Your task to perform on an android device: Open location settings Image 0: 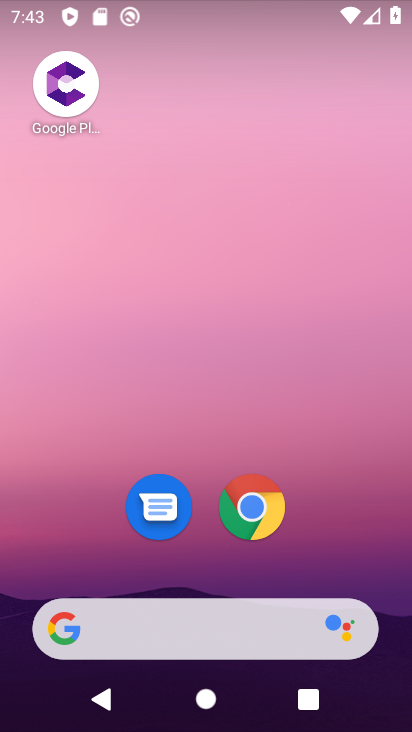
Step 0: drag from (336, 524) to (366, 143)
Your task to perform on an android device: Open location settings Image 1: 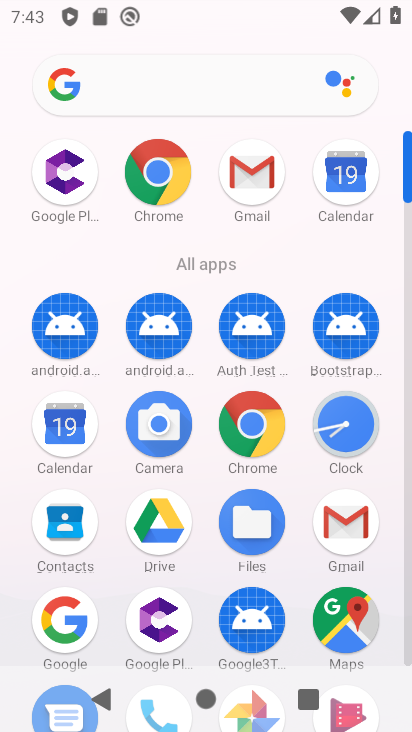
Step 1: drag from (113, 619) to (114, 139)
Your task to perform on an android device: Open location settings Image 2: 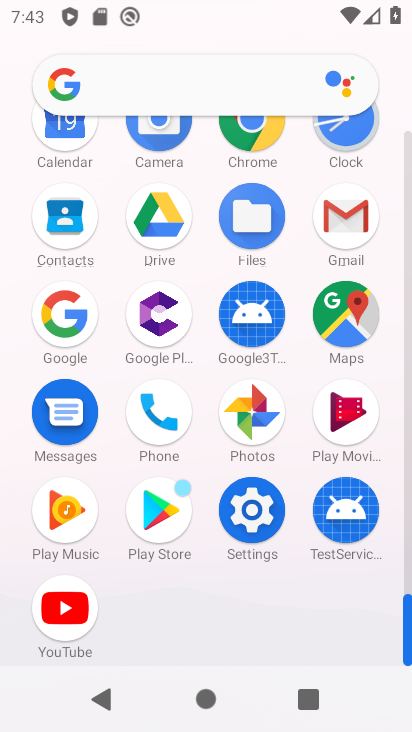
Step 2: click (265, 510)
Your task to perform on an android device: Open location settings Image 3: 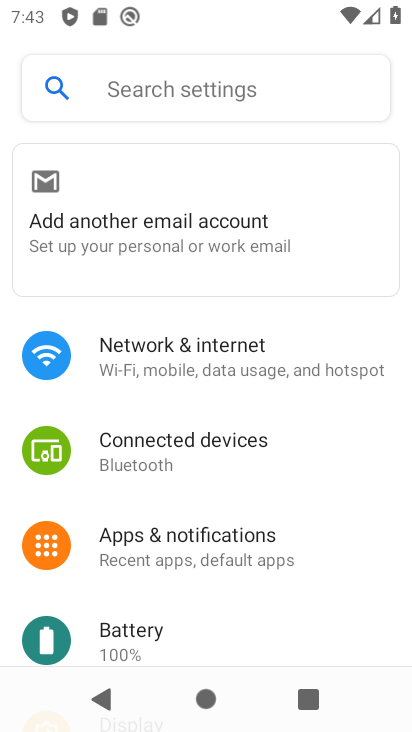
Step 3: drag from (300, 572) to (292, 157)
Your task to perform on an android device: Open location settings Image 4: 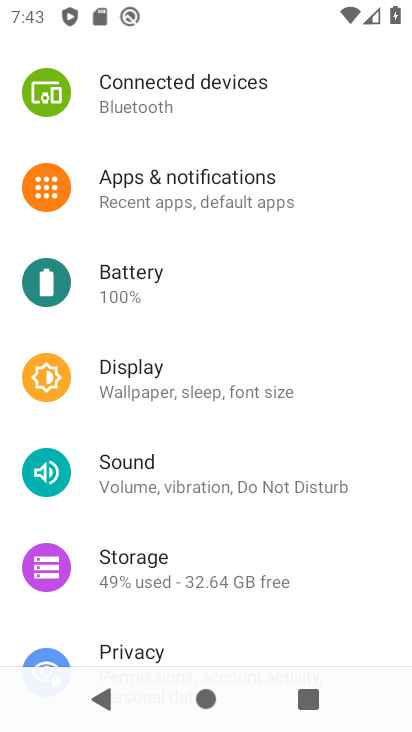
Step 4: drag from (202, 540) to (221, 203)
Your task to perform on an android device: Open location settings Image 5: 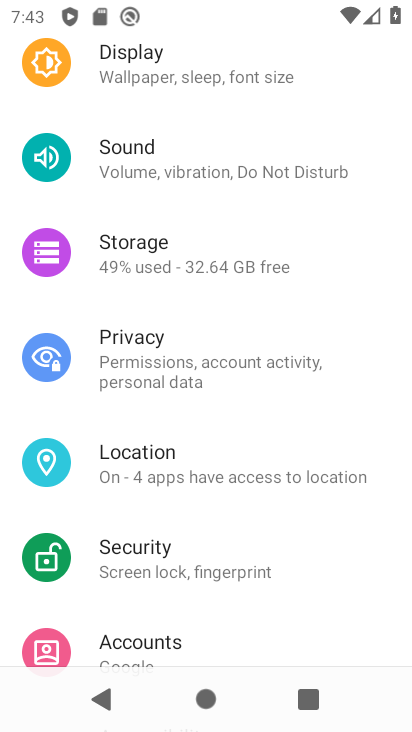
Step 5: click (163, 468)
Your task to perform on an android device: Open location settings Image 6: 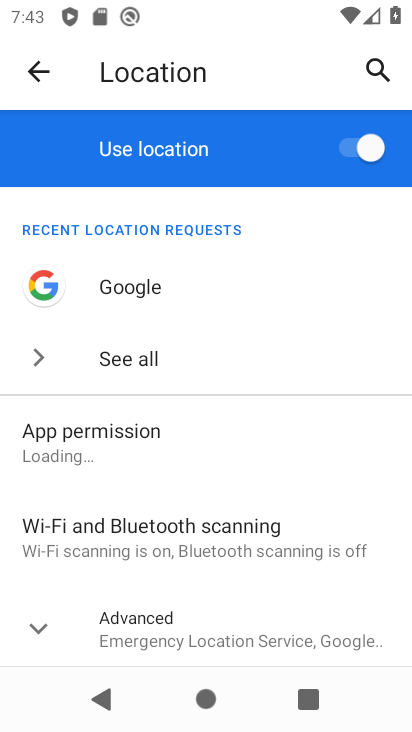
Step 6: click (159, 626)
Your task to perform on an android device: Open location settings Image 7: 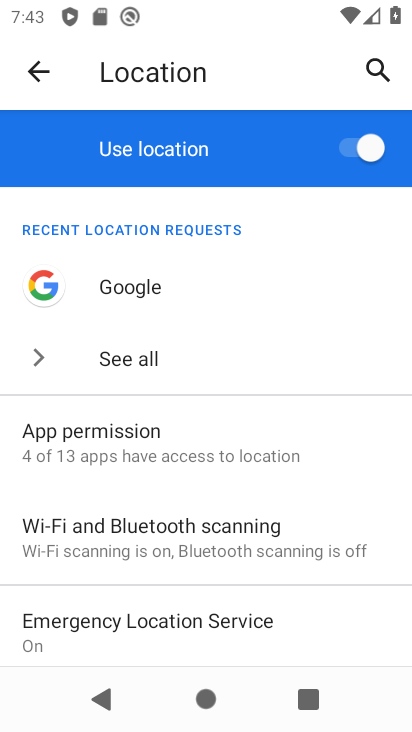
Step 7: task complete